Your task to perform on an android device: open the mobile data screen to see how much data has been used Image 0: 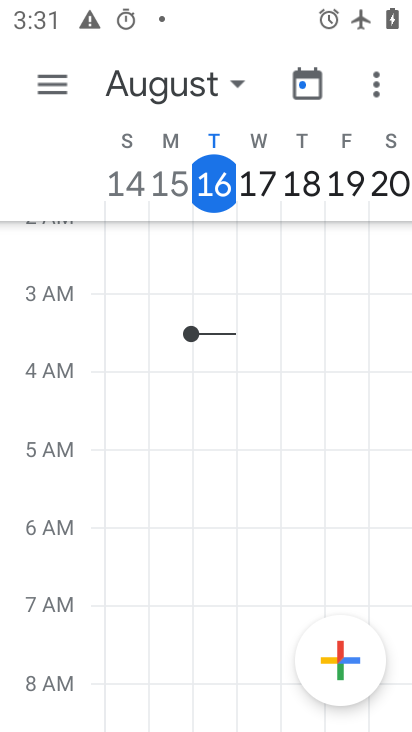
Step 0: press home button
Your task to perform on an android device: open the mobile data screen to see how much data has been used Image 1: 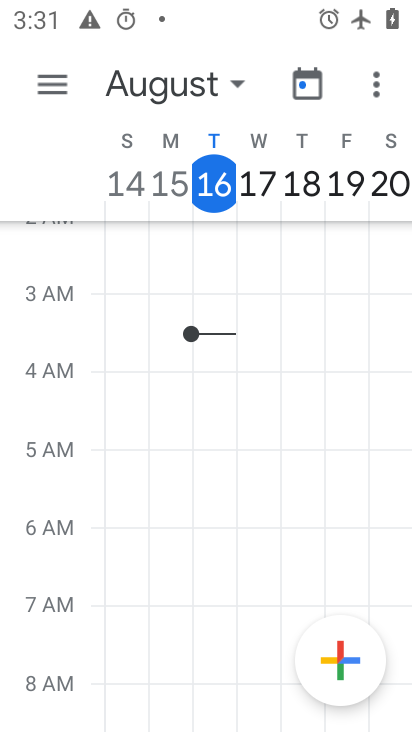
Step 1: press home button
Your task to perform on an android device: open the mobile data screen to see how much data has been used Image 2: 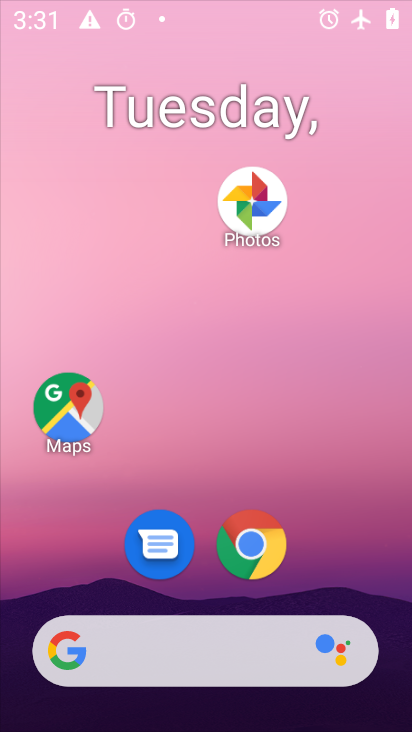
Step 2: press home button
Your task to perform on an android device: open the mobile data screen to see how much data has been used Image 3: 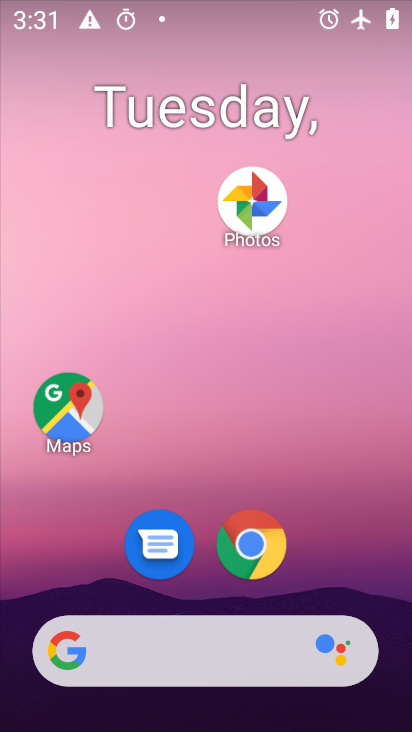
Step 3: drag from (327, 558) to (216, 26)
Your task to perform on an android device: open the mobile data screen to see how much data has been used Image 4: 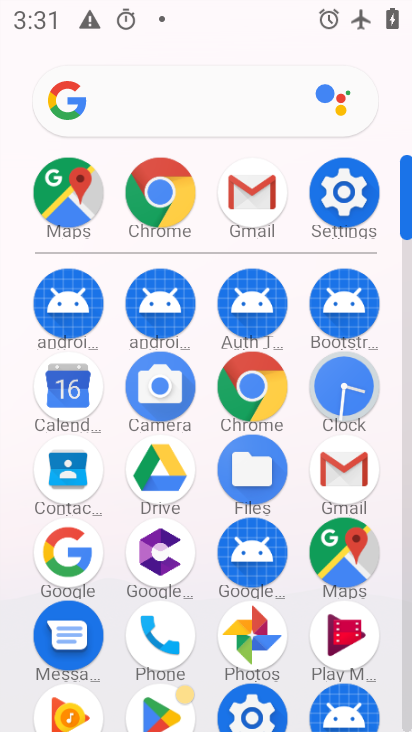
Step 4: click (242, 699)
Your task to perform on an android device: open the mobile data screen to see how much data has been used Image 5: 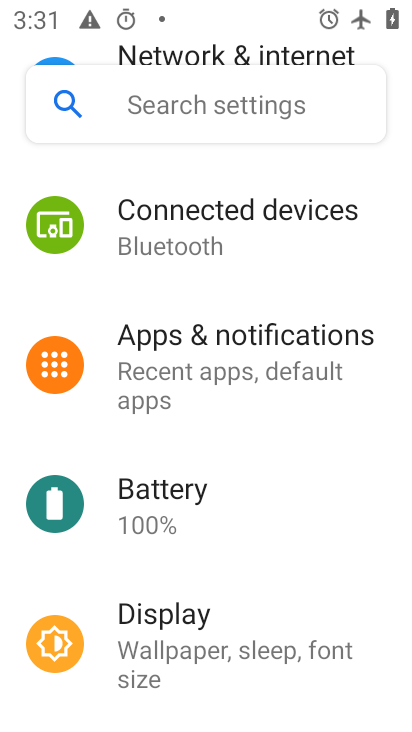
Step 5: drag from (285, 258) to (262, 647)
Your task to perform on an android device: open the mobile data screen to see how much data has been used Image 6: 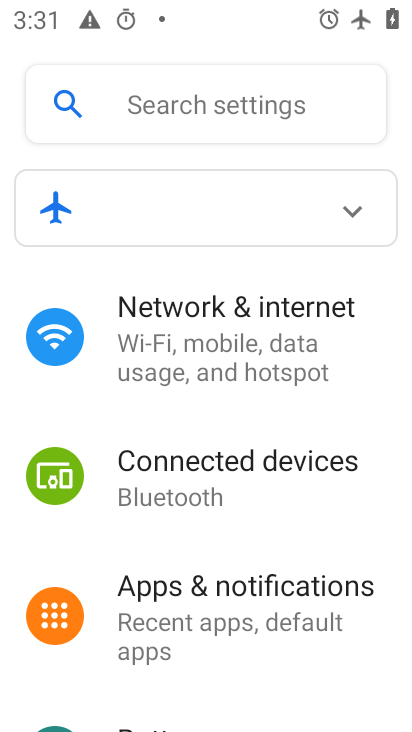
Step 6: click (252, 318)
Your task to perform on an android device: open the mobile data screen to see how much data has been used Image 7: 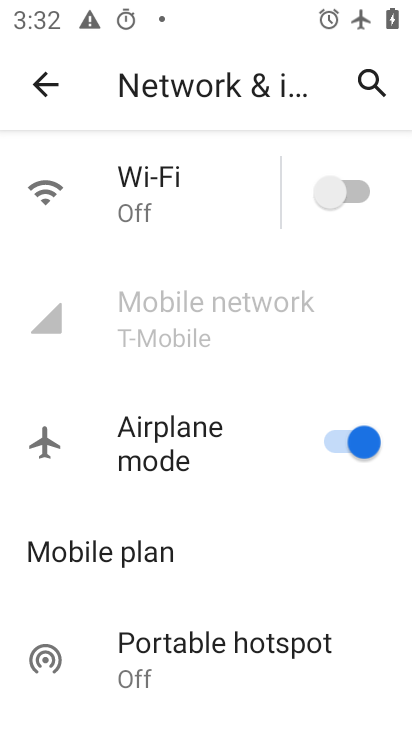
Step 7: click (184, 311)
Your task to perform on an android device: open the mobile data screen to see how much data has been used Image 8: 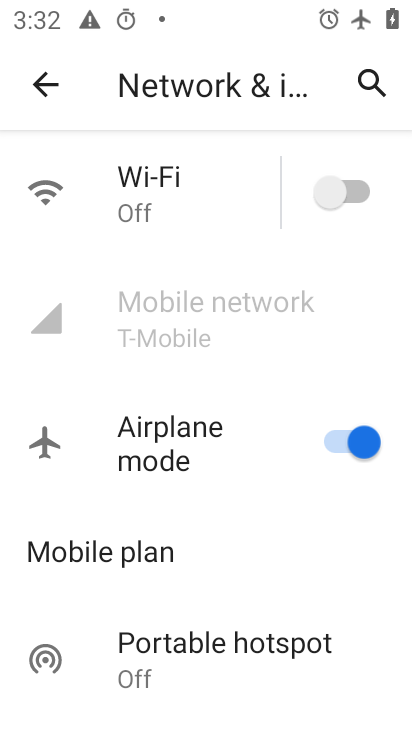
Step 8: task complete